Your task to perform on an android device: Open sound settings Image 0: 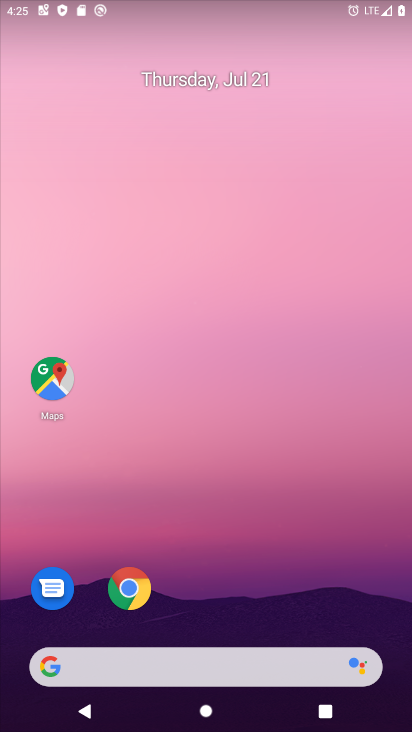
Step 0: drag from (251, 582) to (271, 42)
Your task to perform on an android device: Open sound settings Image 1: 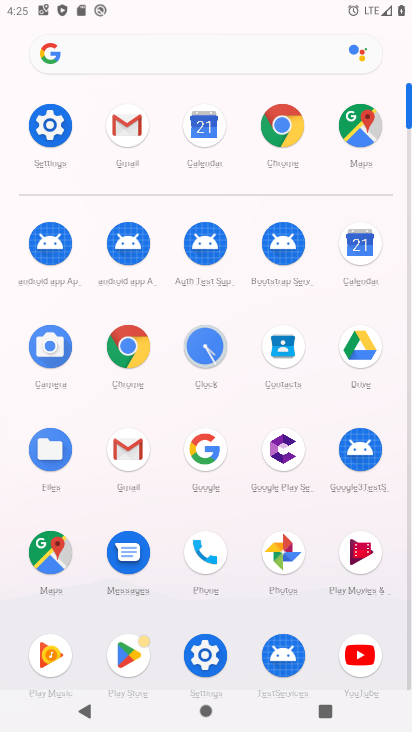
Step 1: click (208, 644)
Your task to perform on an android device: Open sound settings Image 2: 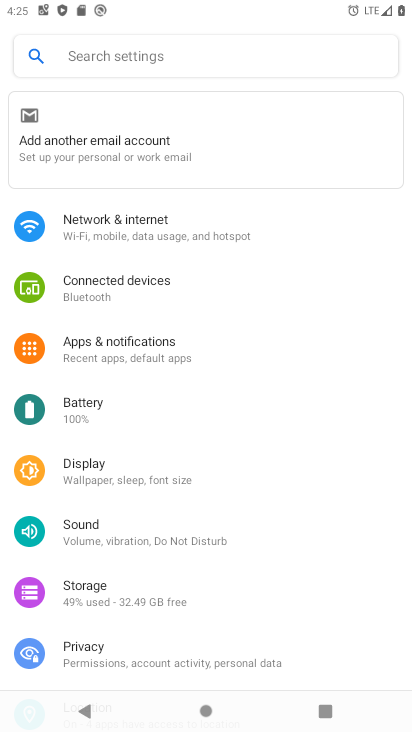
Step 2: click (102, 521)
Your task to perform on an android device: Open sound settings Image 3: 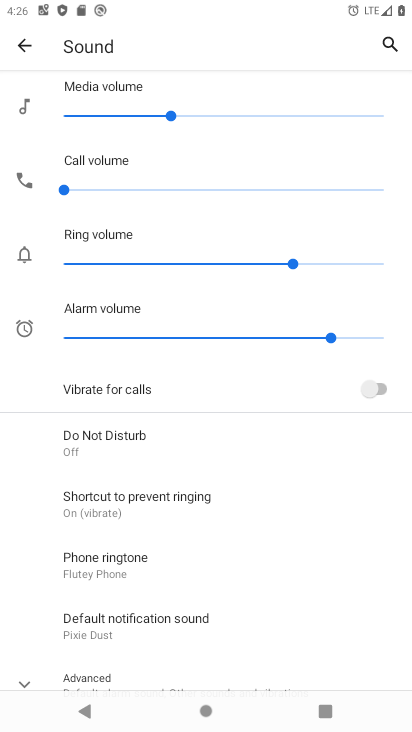
Step 3: task complete